Your task to perform on an android device: manage bookmarks in the chrome app Image 0: 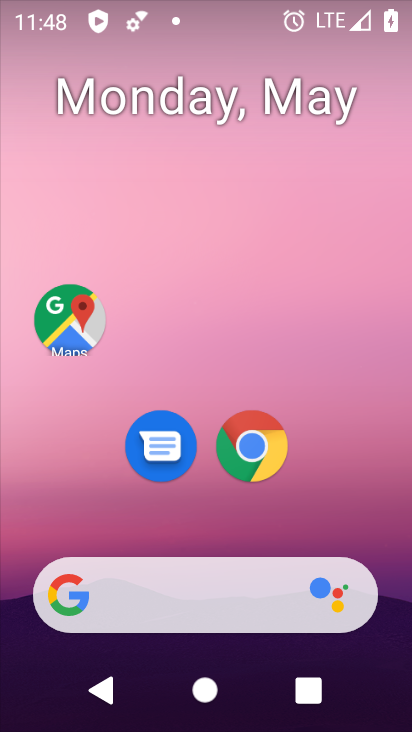
Step 0: click (259, 450)
Your task to perform on an android device: manage bookmarks in the chrome app Image 1: 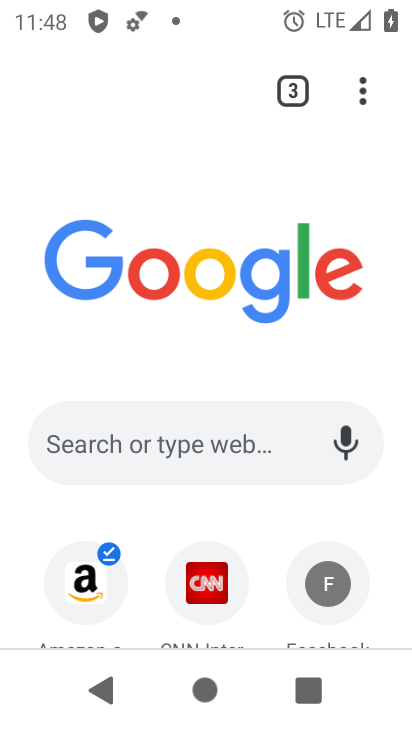
Step 1: click (361, 86)
Your task to perform on an android device: manage bookmarks in the chrome app Image 2: 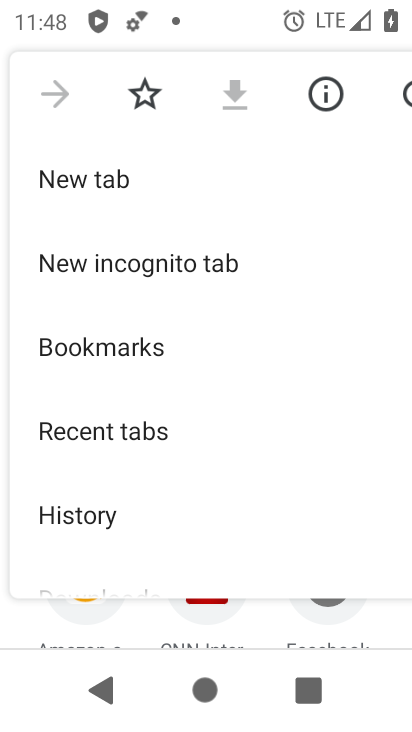
Step 2: click (94, 341)
Your task to perform on an android device: manage bookmarks in the chrome app Image 3: 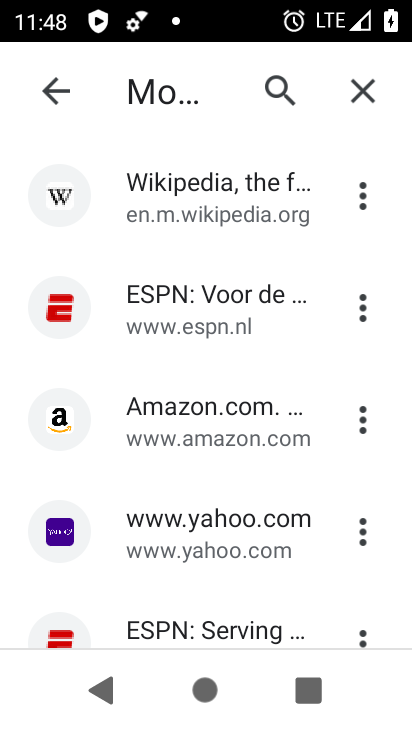
Step 3: click (361, 188)
Your task to perform on an android device: manage bookmarks in the chrome app Image 4: 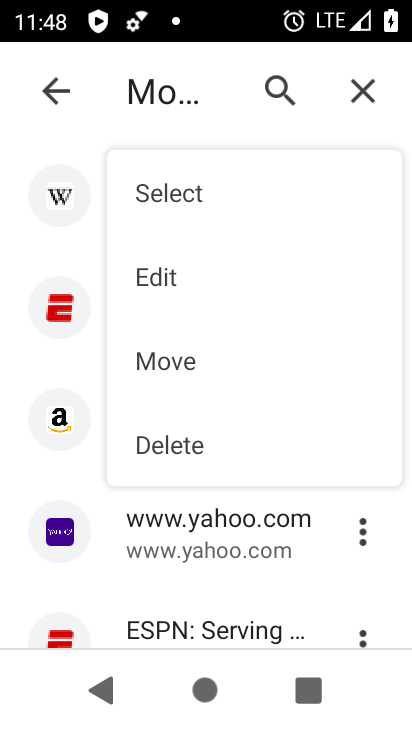
Step 4: click (170, 267)
Your task to perform on an android device: manage bookmarks in the chrome app Image 5: 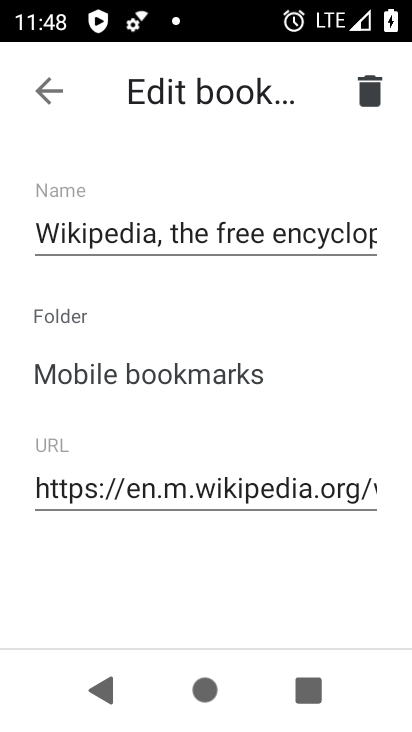
Step 5: task complete